Your task to perform on an android device: Go to Google maps Image 0: 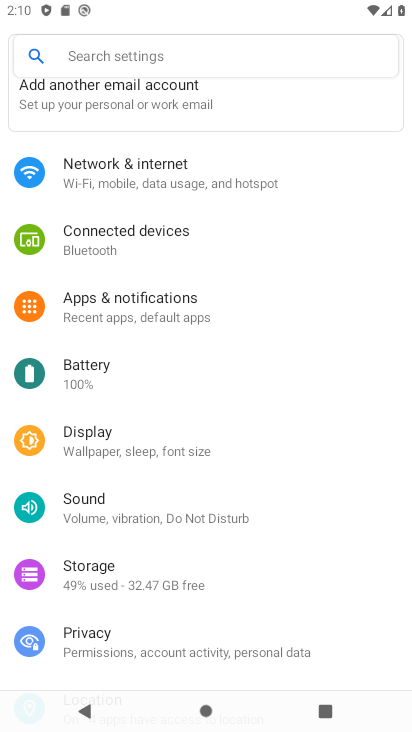
Step 0: press back button
Your task to perform on an android device: Go to Google maps Image 1: 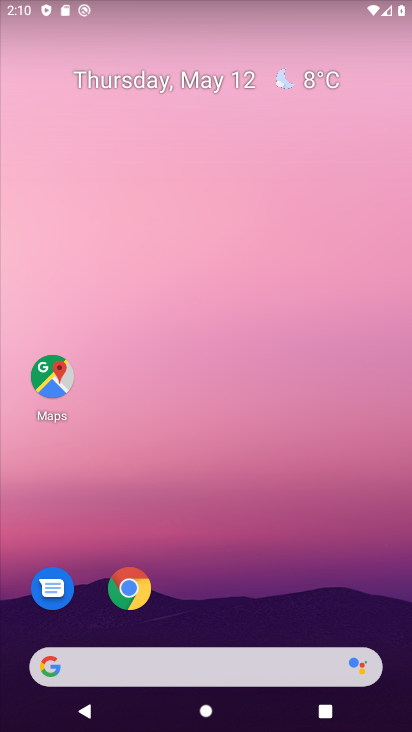
Step 1: drag from (282, 541) to (235, 46)
Your task to perform on an android device: Go to Google maps Image 2: 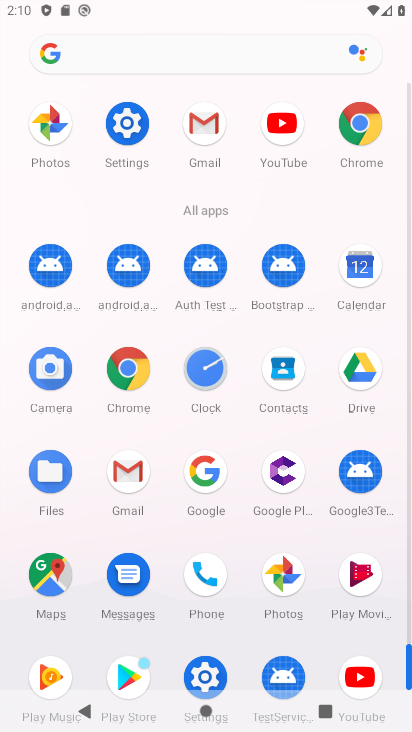
Step 2: drag from (10, 528) to (3, 231)
Your task to perform on an android device: Go to Google maps Image 3: 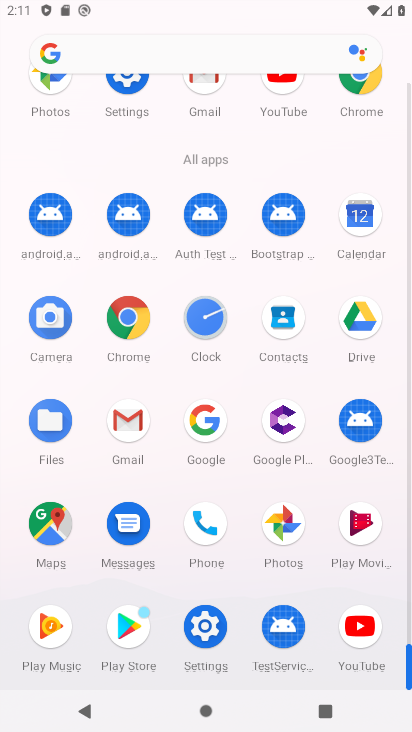
Step 3: click (50, 511)
Your task to perform on an android device: Go to Google maps Image 4: 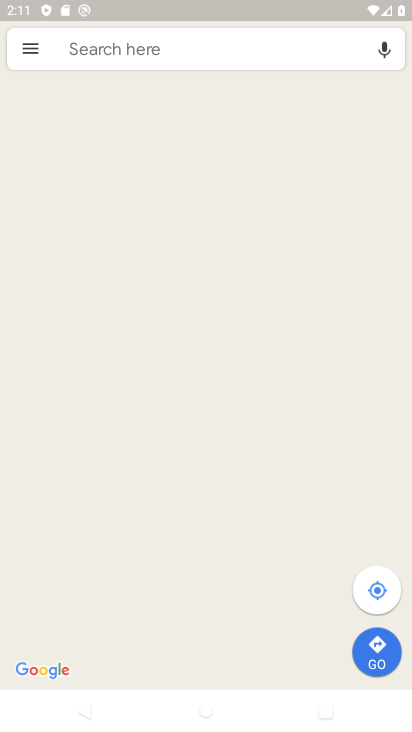
Step 4: click (198, 51)
Your task to perform on an android device: Go to Google maps Image 5: 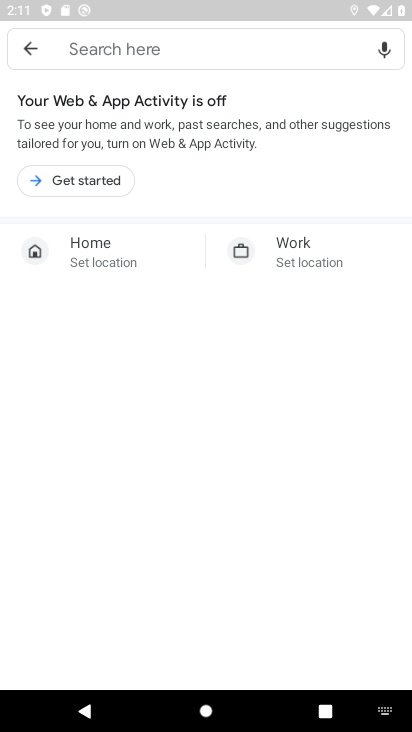
Step 5: click (28, 50)
Your task to perform on an android device: Go to Google maps Image 6: 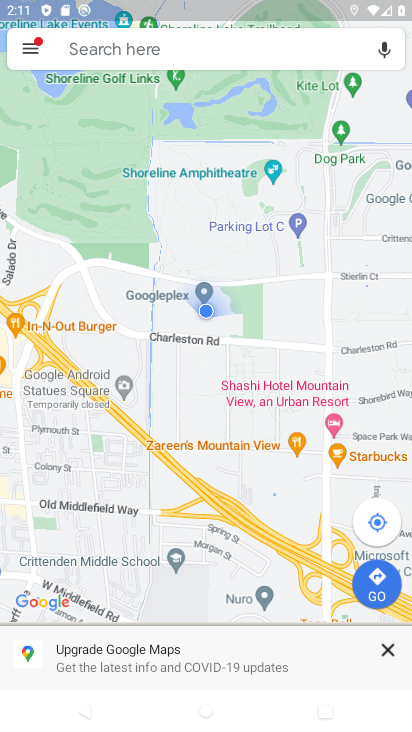
Step 6: task complete